Your task to perform on an android device: Open Yahoo.com Image 0: 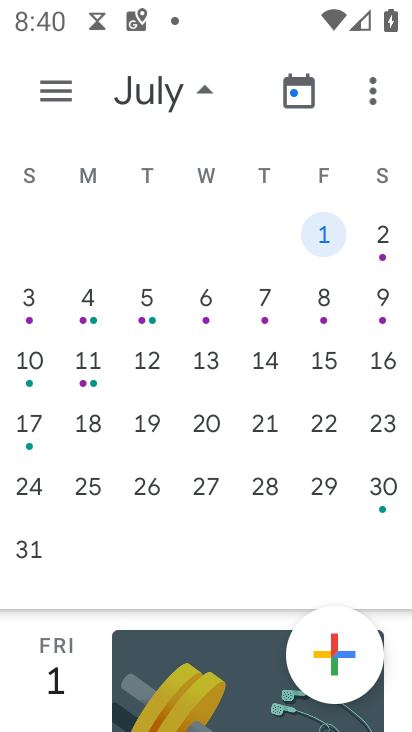
Step 0: press home button
Your task to perform on an android device: Open Yahoo.com Image 1: 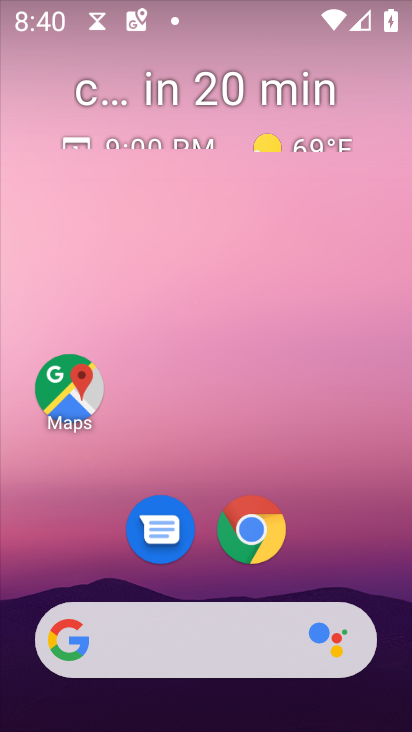
Step 1: click (245, 540)
Your task to perform on an android device: Open Yahoo.com Image 2: 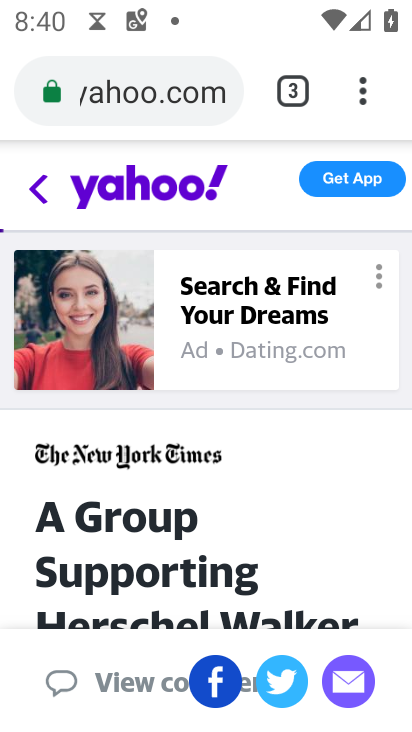
Step 2: task complete